Your task to perform on an android device: Open Wikipedia Image 0: 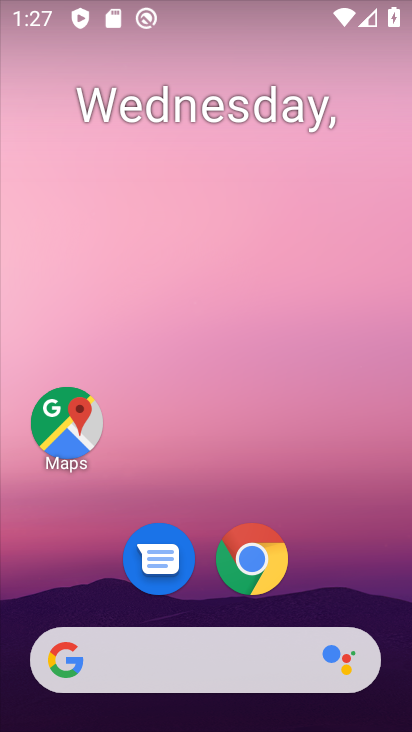
Step 0: click (263, 571)
Your task to perform on an android device: Open Wikipedia Image 1: 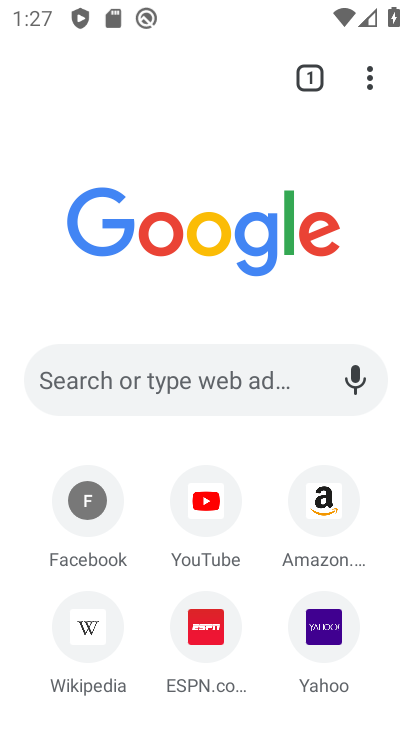
Step 1: click (101, 625)
Your task to perform on an android device: Open Wikipedia Image 2: 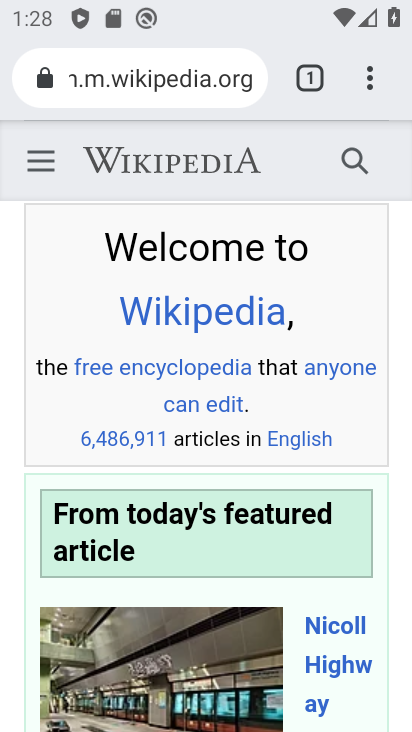
Step 2: task complete